Your task to perform on an android device: Open Chrome and go to settings Image 0: 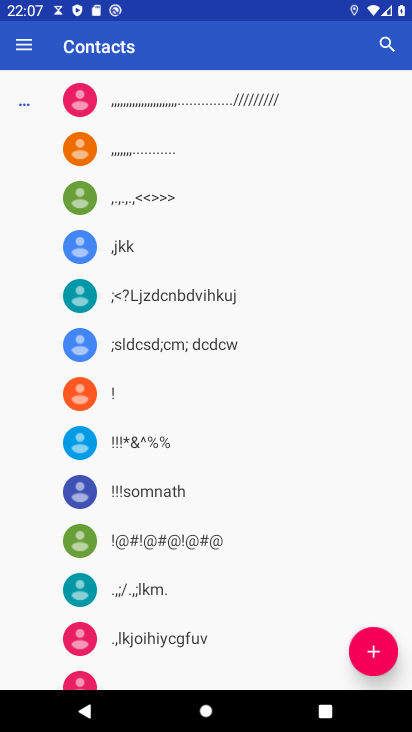
Step 0: press home button
Your task to perform on an android device: Open Chrome and go to settings Image 1: 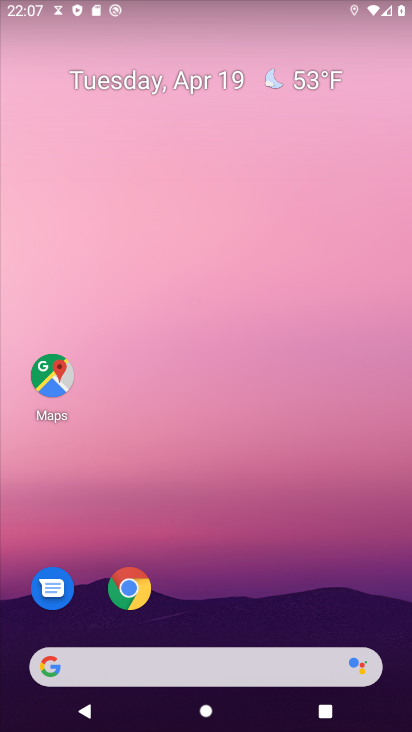
Step 1: click (129, 589)
Your task to perform on an android device: Open Chrome and go to settings Image 2: 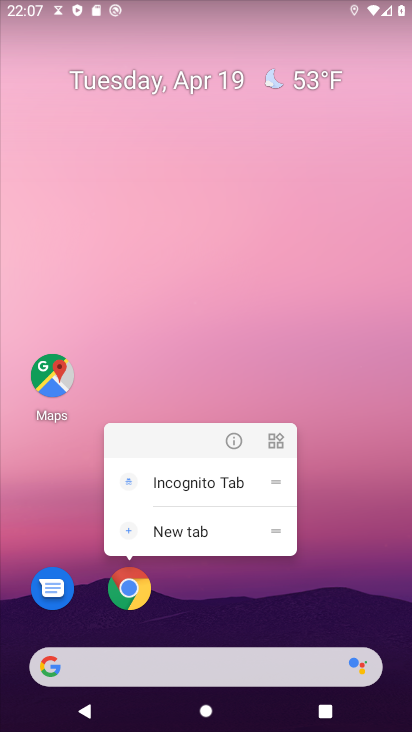
Step 2: click (129, 589)
Your task to perform on an android device: Open Chrome and go to settings Image 3: 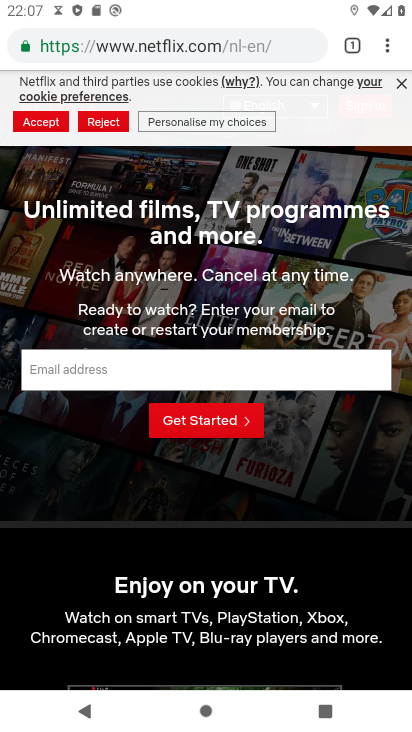
Step 3: click (394, 49)
Your task to perform on an android device: Open Chrome and go to settings Image 4: 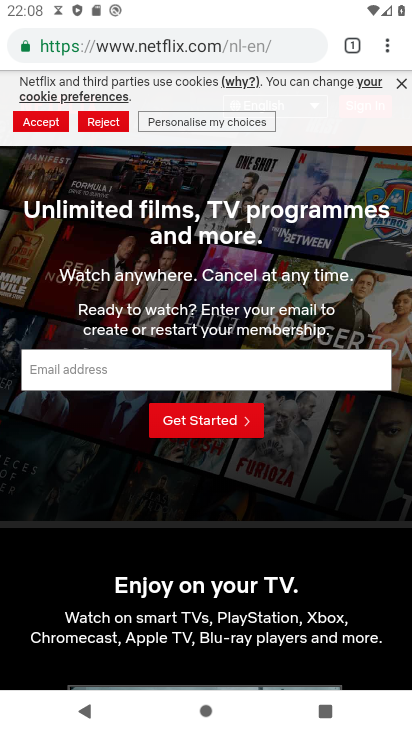
Step 4: click (385, 49)
Your task to perform on an android device: Open Chrome and go to settings Image 5: 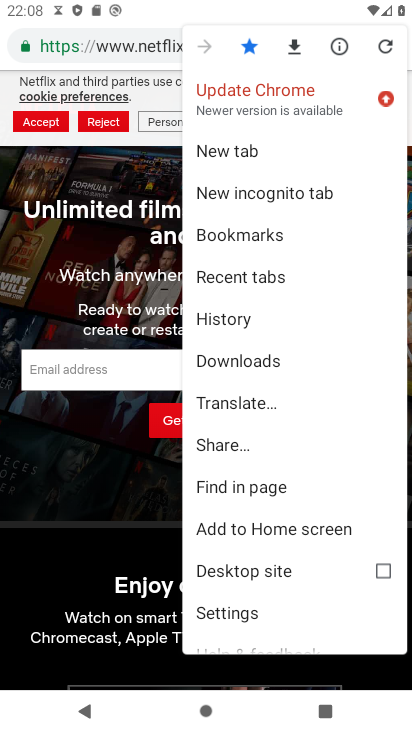
Step 5: click (239, 623)
Your task to perform on an android device: Open Chrome and go to settings Image 6: 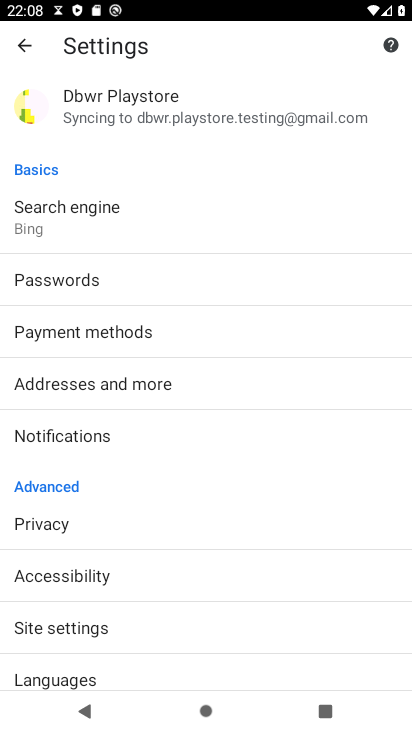
Step 6: task complete